Your task to perform on an android device: Go to battery settings Image 0: 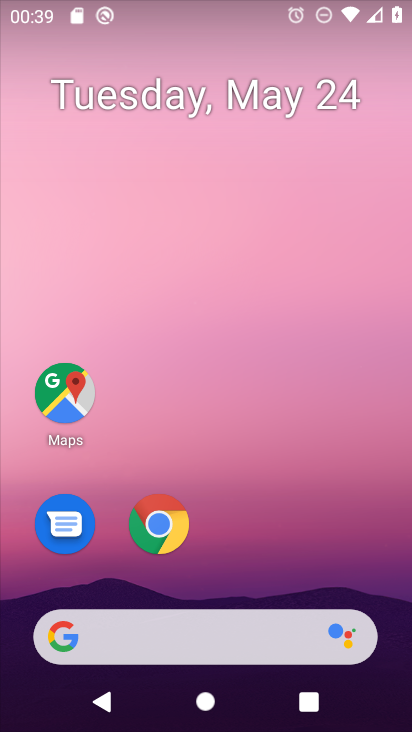
Step 0: drag from (206, 571) to (240, 102)
Your task to perform on an android device: Go to battery settings Image 1: 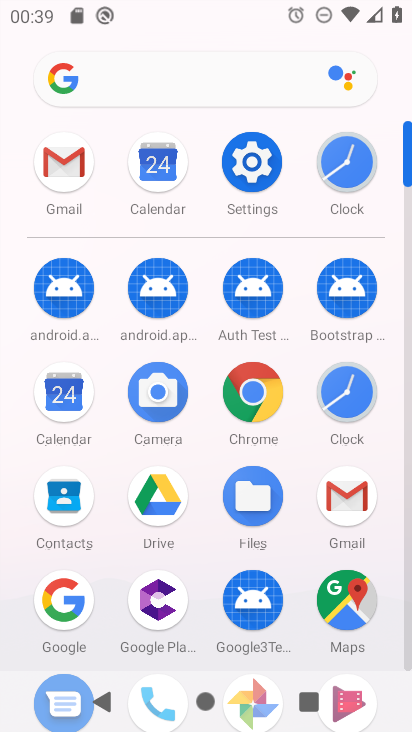
Step 1: click (254, 156)
Your task to perform on an android device: Go to battery settings Image 2: 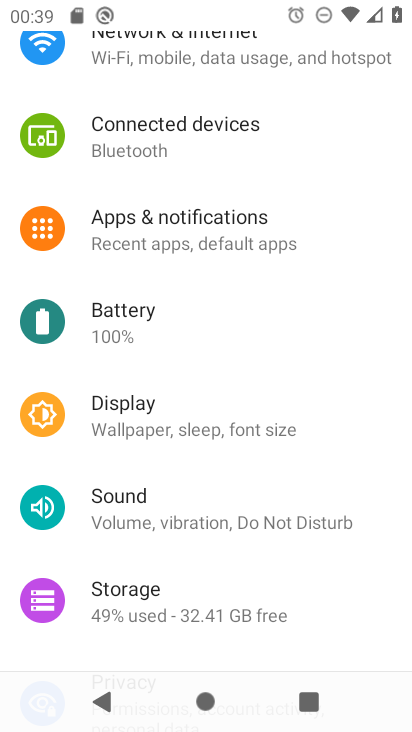
Step 2: click (159, 317)
Your task to perform on an android device: Go to battery settings Image 3: 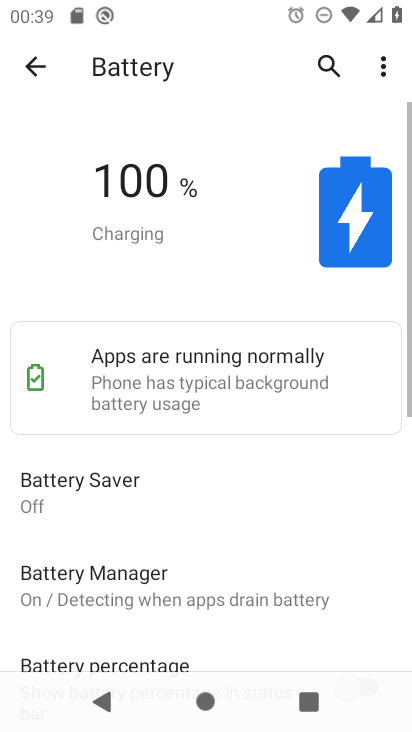
Step 3: task complete